Your task to perform on an android device: Do I have any events today? Image 0: 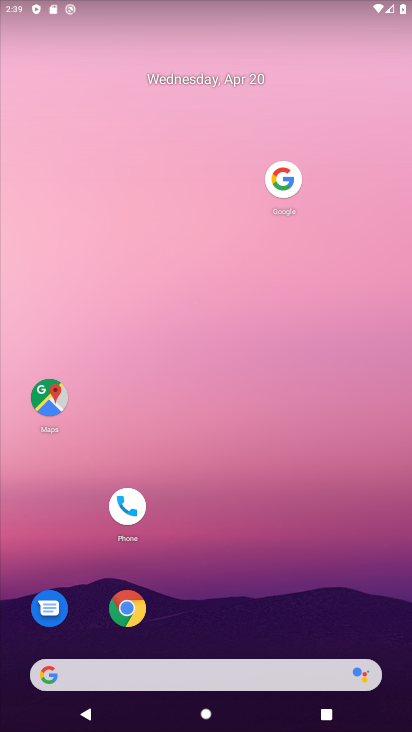
Step 0: drag from (288, 464) to (318, 175)
Your task to perform on an android device: Do I have any events today? Image 1: 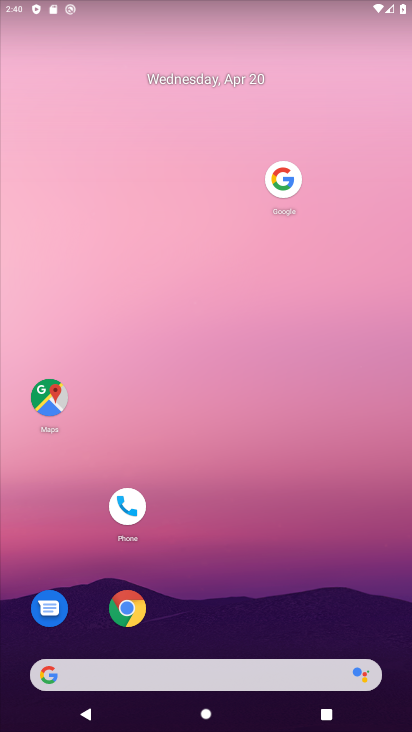
Step 1: drag from (290, 536) to (293, 56)
Your task to perform on an android device: Do I have any events today? Image 2: 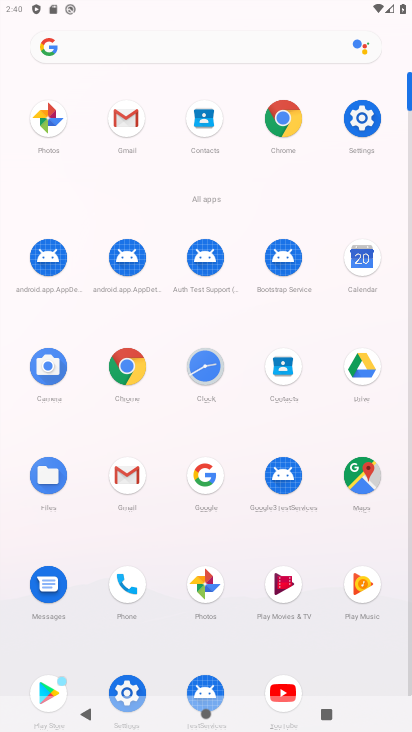
Step 2: click (366, 256)
Your task to perform on an android device: Do I have any events today? Image 3: 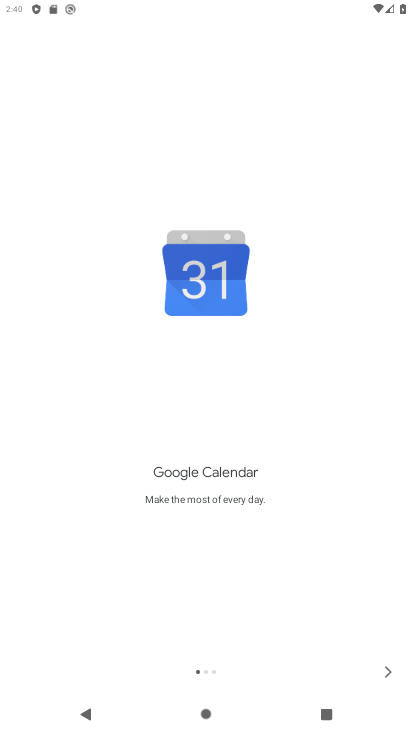
Step 3: click (387, 672)
Your task to perform on an android device: Do I have any events today? Image 4: 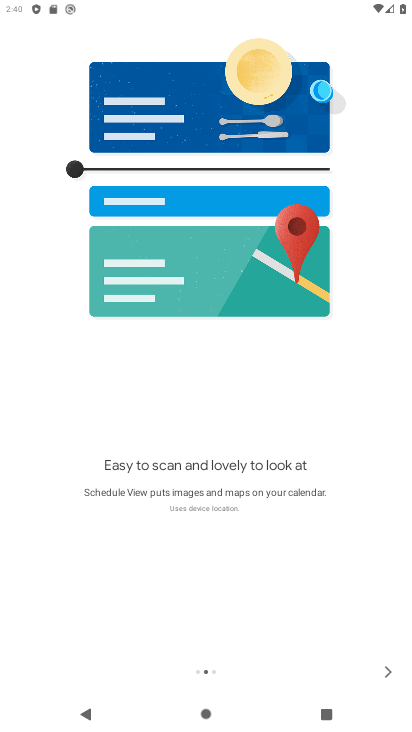
Step 4: click (387, 672)
Your task to perform on an android device: Do I have any events today? Image 5: 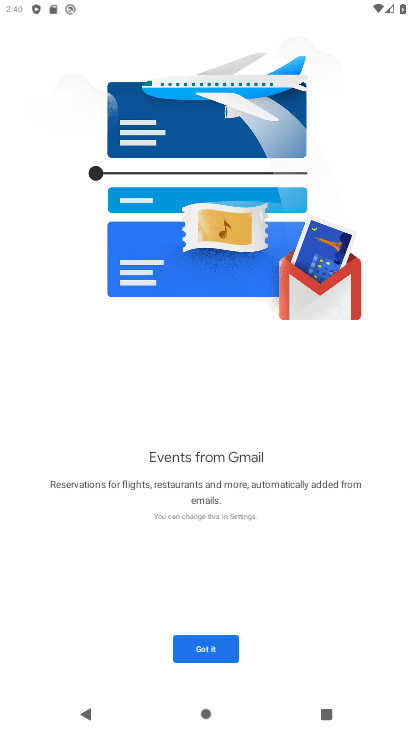
Step 5: click (192, 650)
Your task to perform on an android device: Do I have any events today? Image 6: 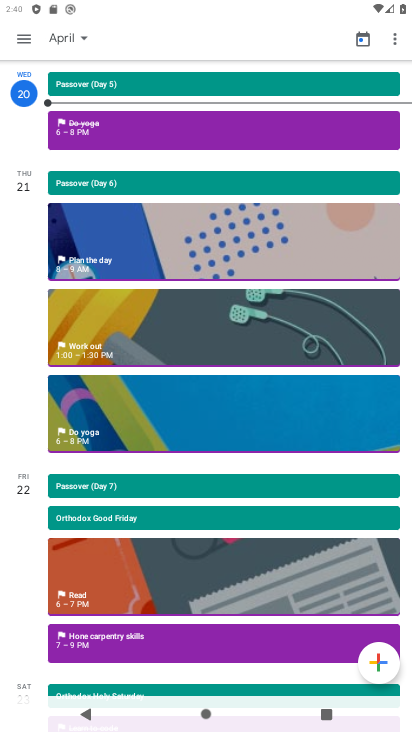
Step 6: task complete